Your task to perform on an android device: What's the weather today? Image 0: 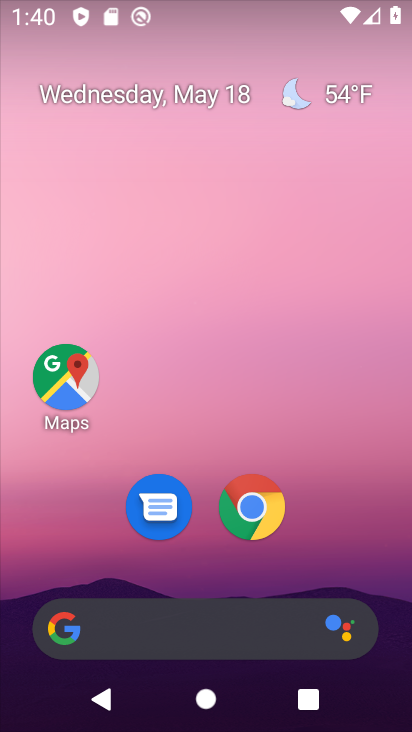
Step 0: drag from (389, 607) to (311, 214)
Your task to perform on an android device: What's the weather today? Image 1: 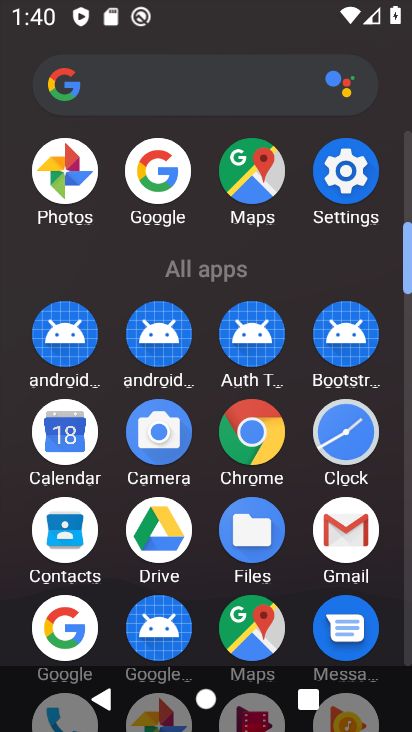
Step 1: click (359, 180)
Your task to perform on an android device: What's the weather today? Image 2: 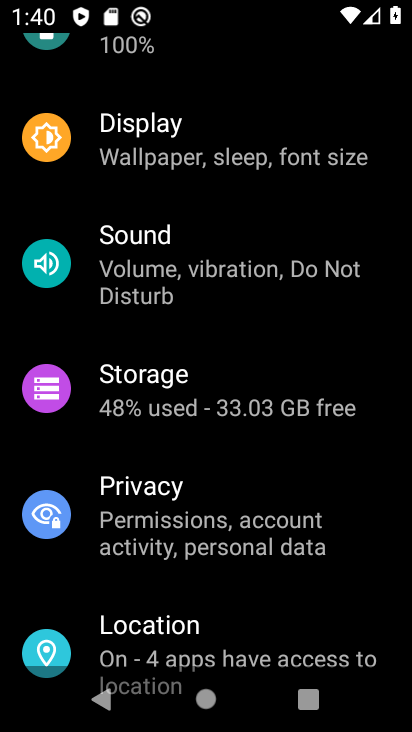
Step 2: press home button
Your task to perform on an android device: What's the weather today? Image 3: 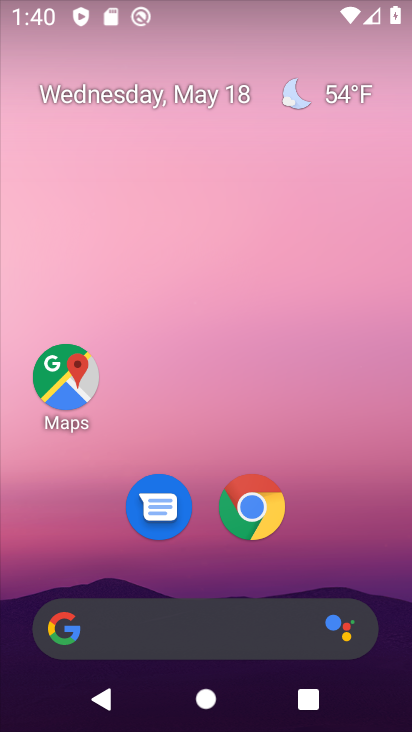
Step 3: click (317, 86)
Your task to perform on an android device: What's the weather today? Image 4: 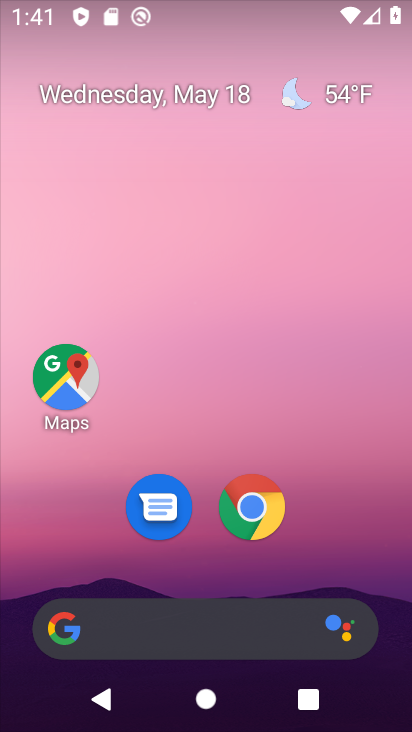
Step 4: click (333, 86)
Your task to perform on an android device: What's the weather today? Image 5: 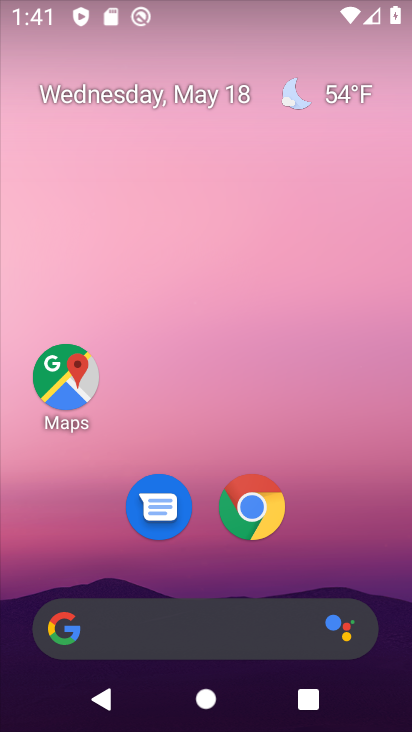
Step 5: click (341, 94)
Your task to perform on an android device: What's the weather today? Image 6: 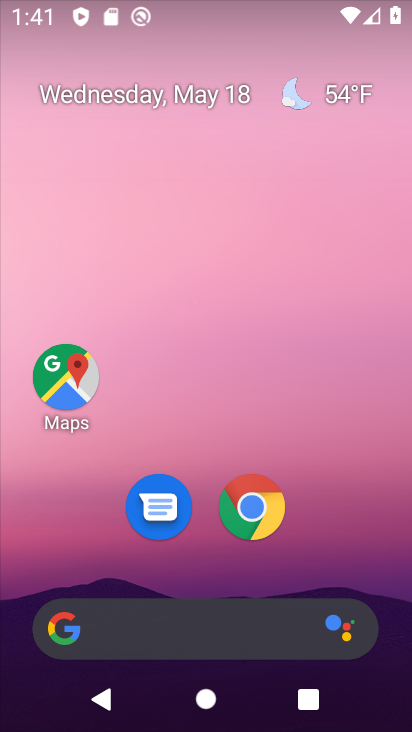
Step 6: click (348, 98)
Your task to perform on an android device: What's the weather today? Image 7: 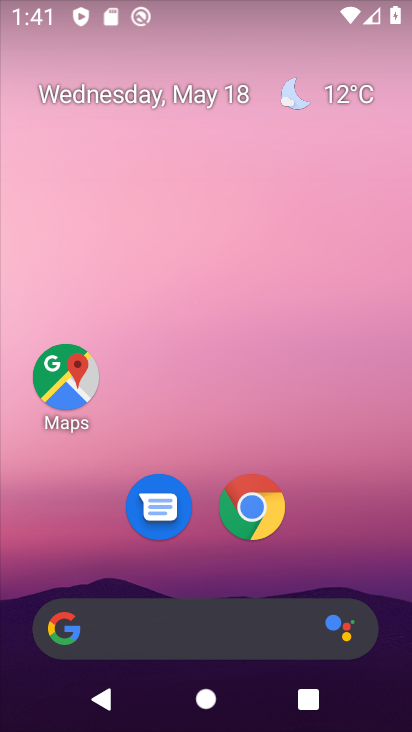
Step 7: click (348, 100)
Your task to perform on an android device: What's the weather today? Image 8: 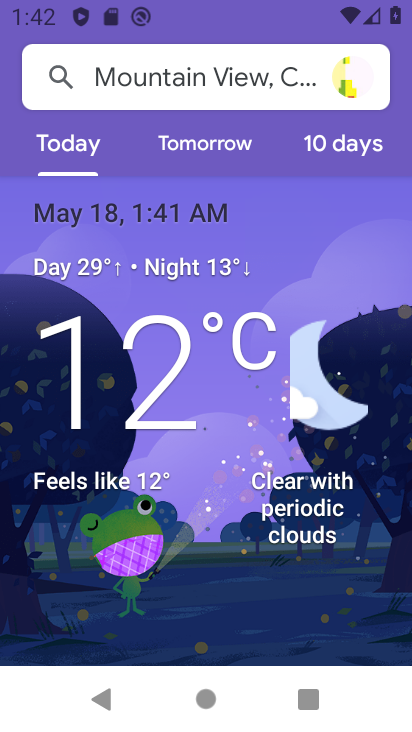
Step 8: task complete